Your task to perform on an android device: open app "File Manager" Image 0: 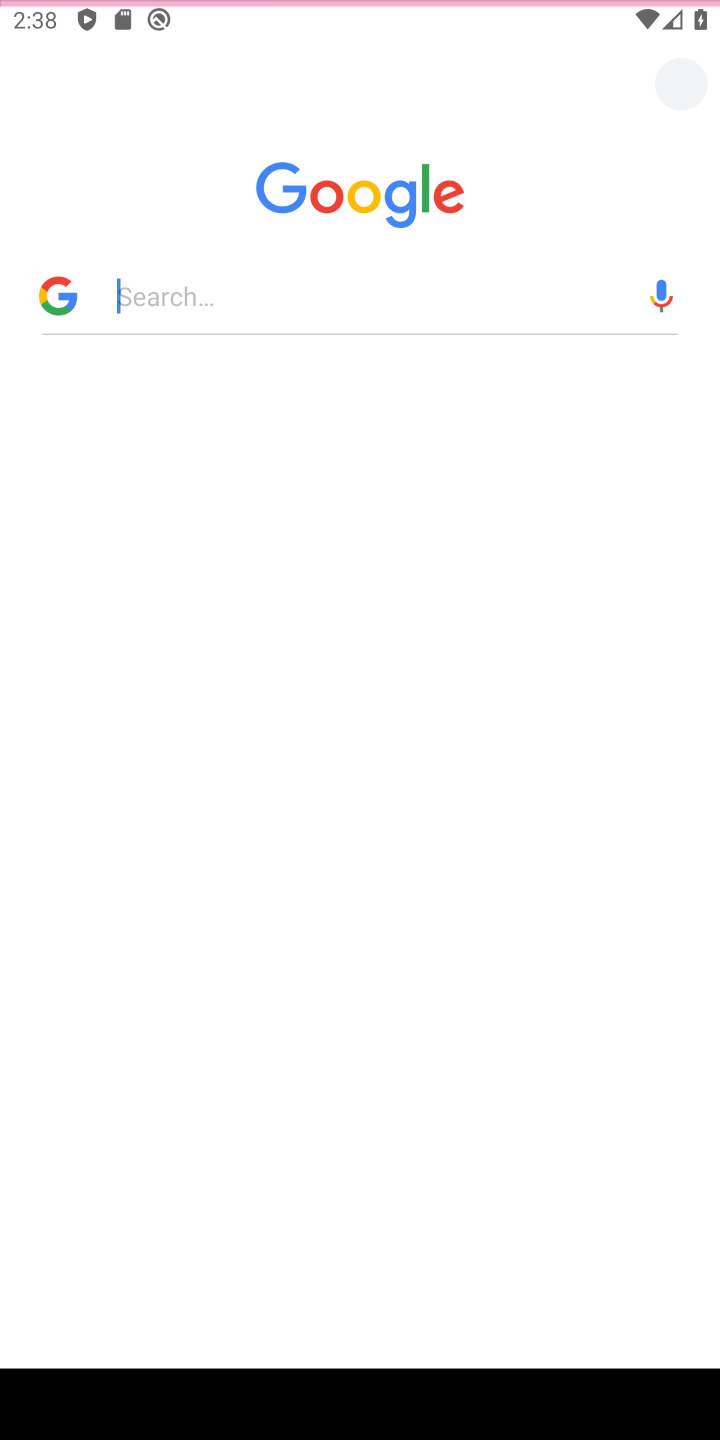
Step 0: press home button
Your task to perform on an android device: open app "File Manager" Image 1: 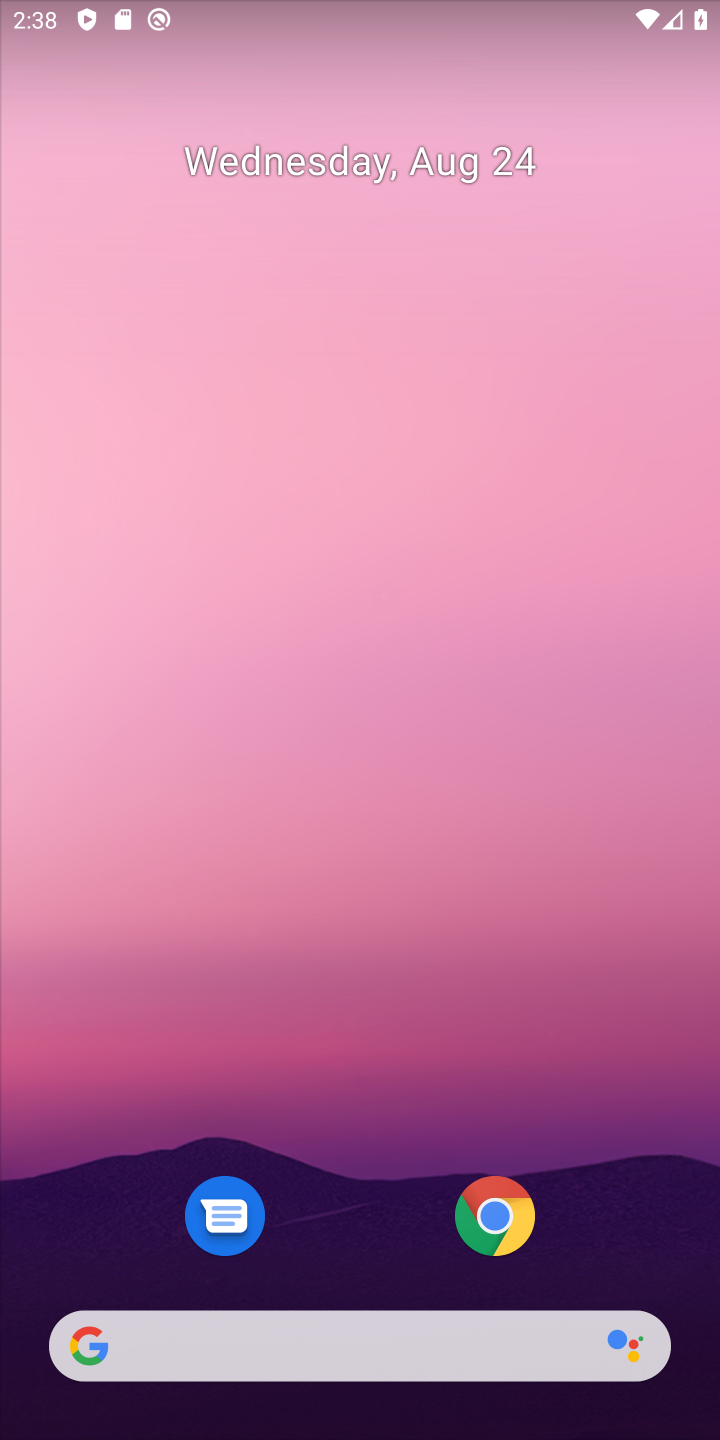
Step 1: drag from (637, 1184) to (582, 81)
Your task to perform on an android device: open app "File Manager" Image 2: 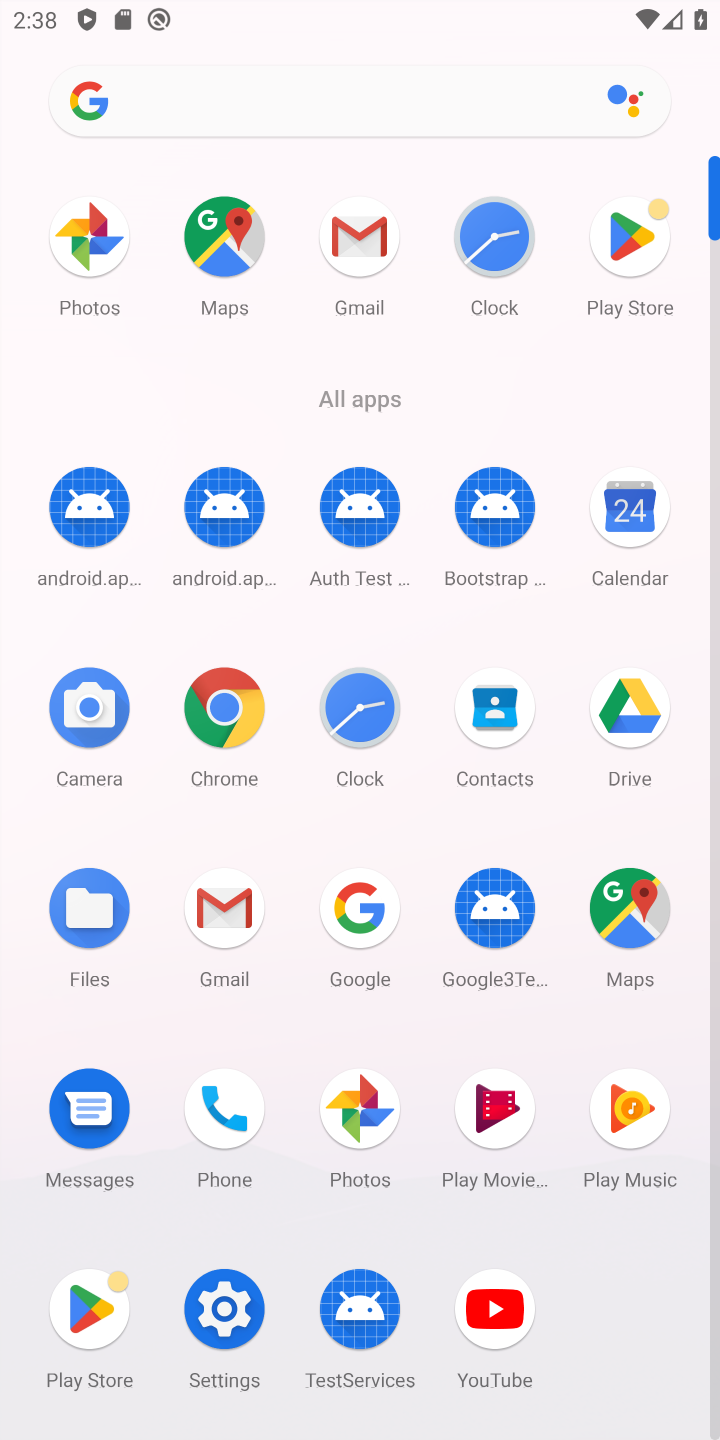
Step 2: click (634, 248)
Your task to perform on an android device: open app "File Manager" Image 3: 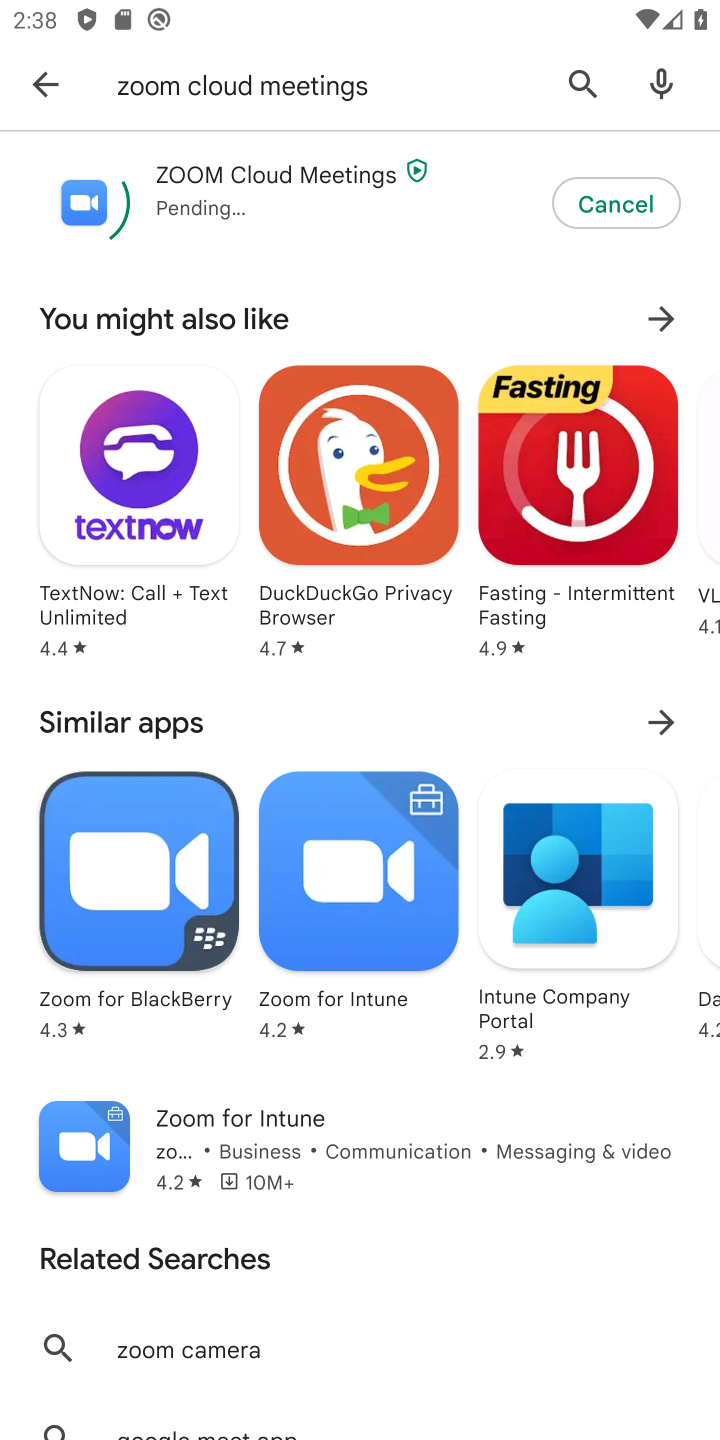
Step 3: press back button
Your task to perform on an android device: open app "File Manager" Image 4: 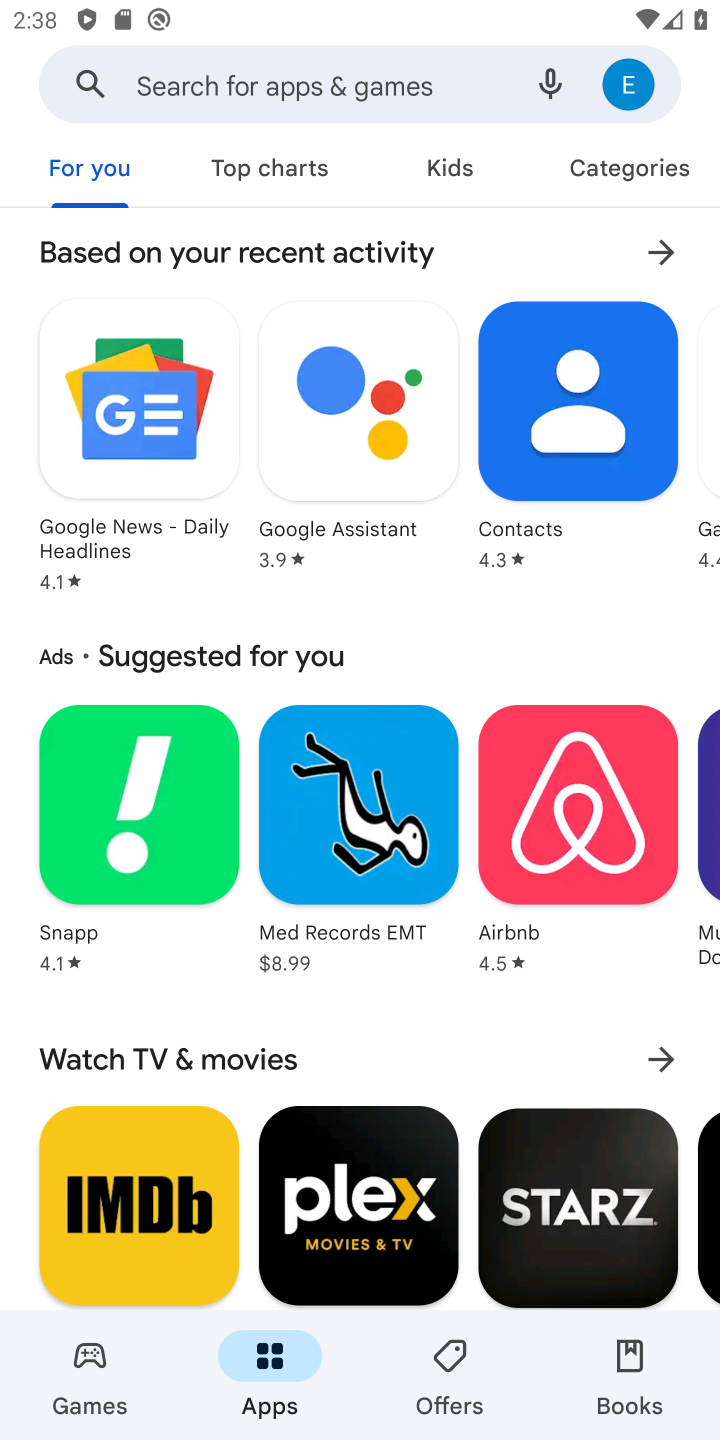
Step 4: click (367, 89)
Your task to perform on an android device: open app "File Manager" Image 5: 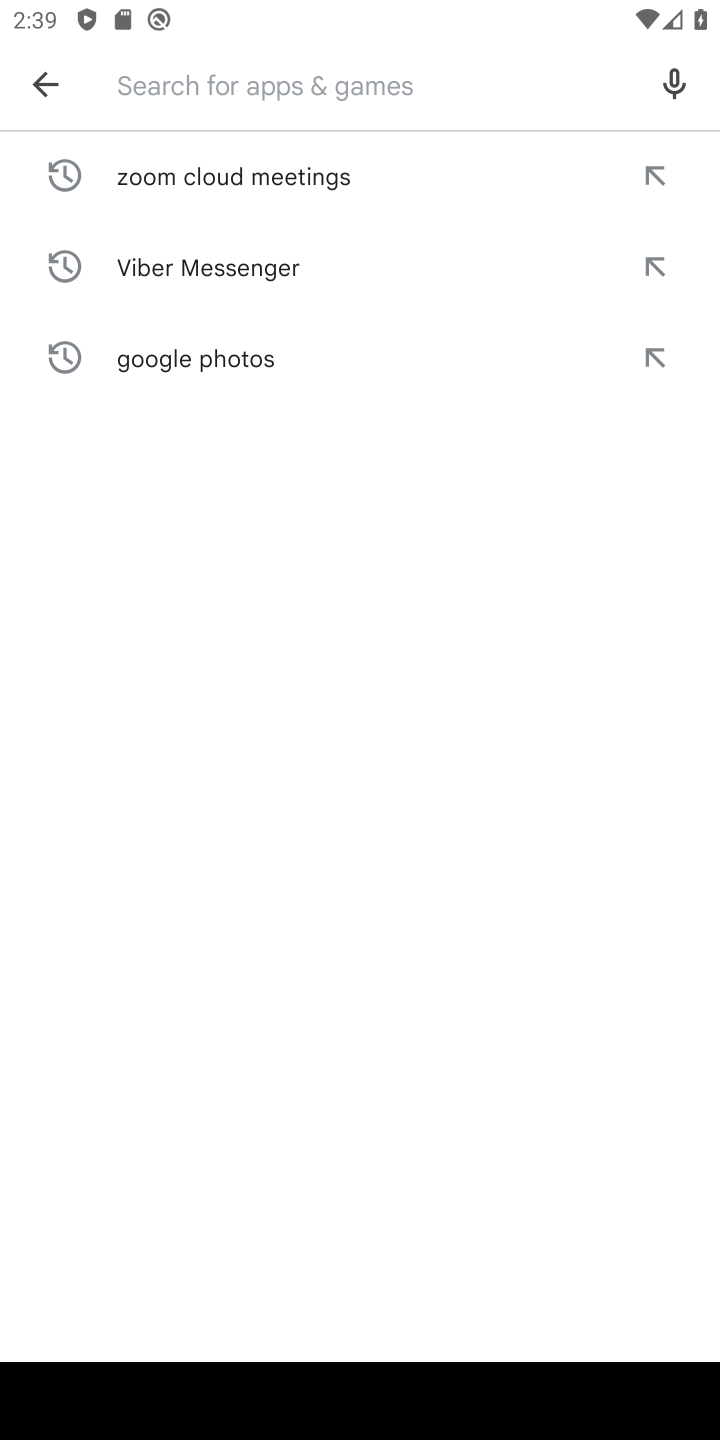
Step 5: type "File Manager"
Your task to perform on an android device: open app "File Manager" Image 6: 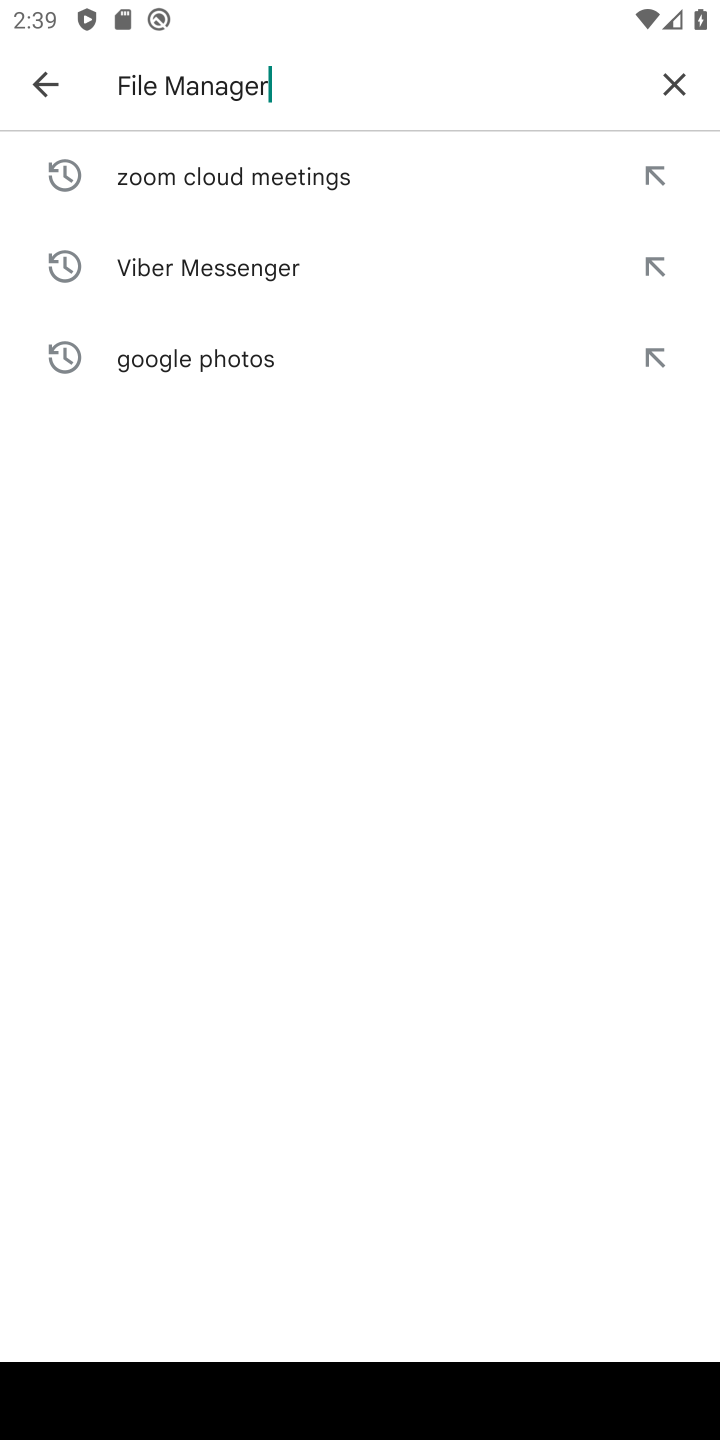
Step 6: press enter
Your task to perform on an android device: open app "File Manager" Image 7: 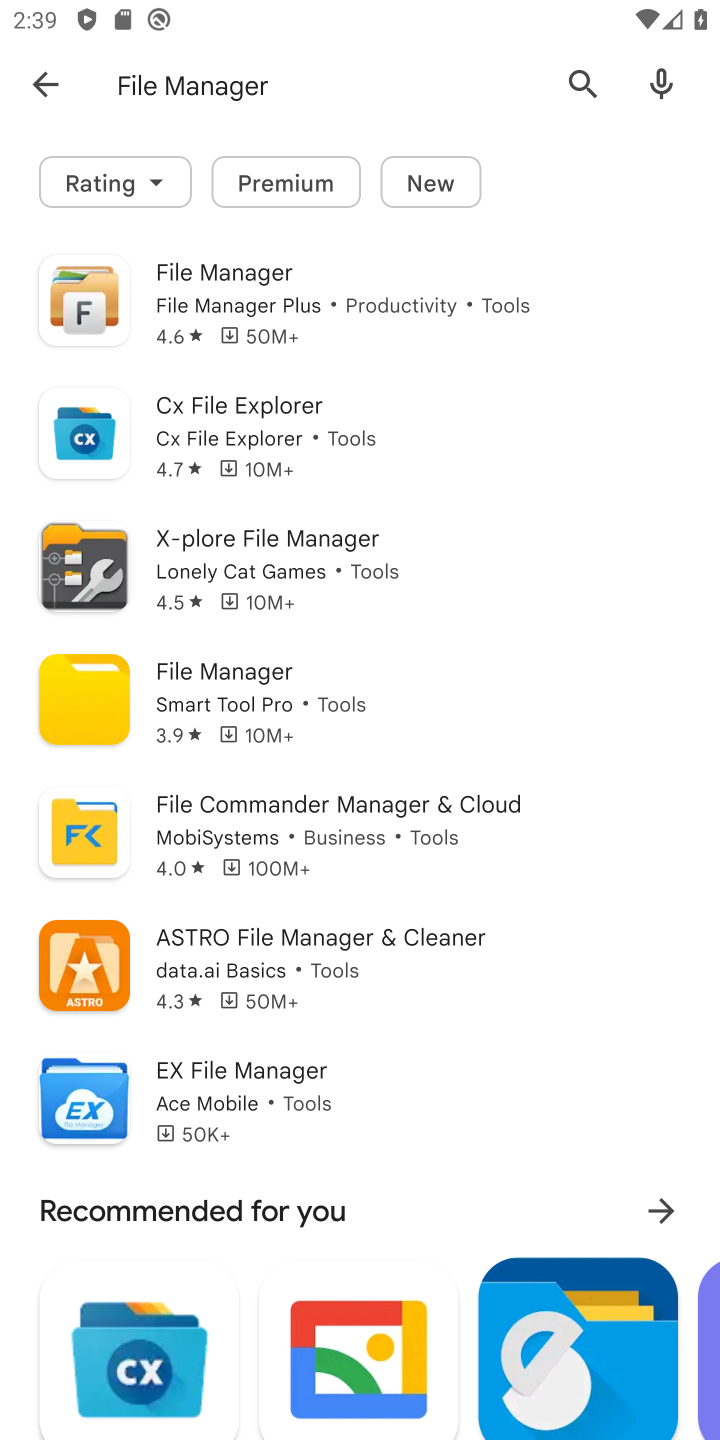
Step 7: task complete